Your task to perform on an android device: toggle notification dots Image 0: 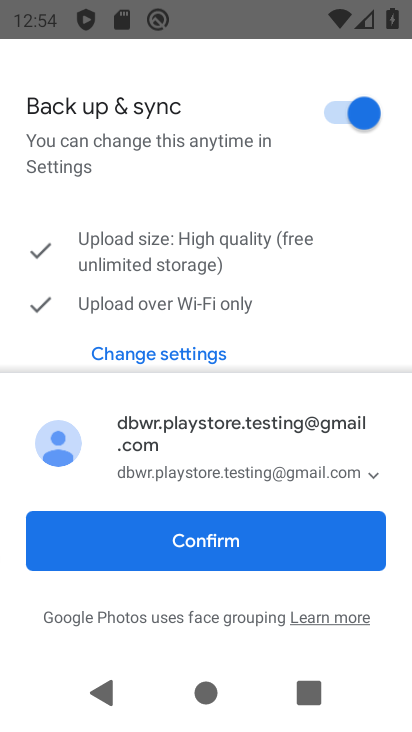
Step 0: press home button
Your task to perform on an android device: toggle notification dots Image 1: 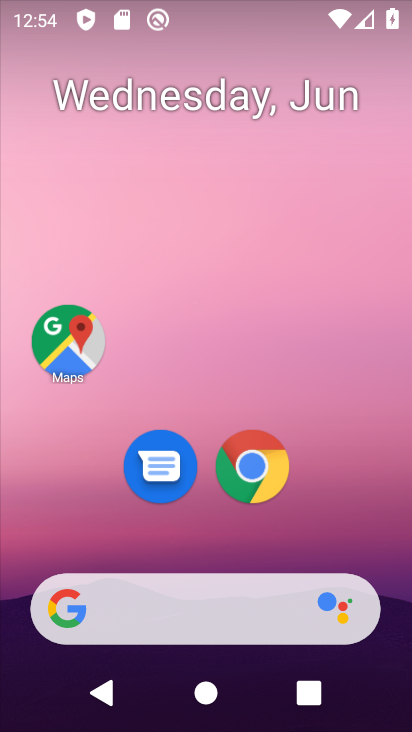
Step 1: drag from (77, 572) to (243, 150)
Your task to perform on an android device: toggle notification dots Image 2: 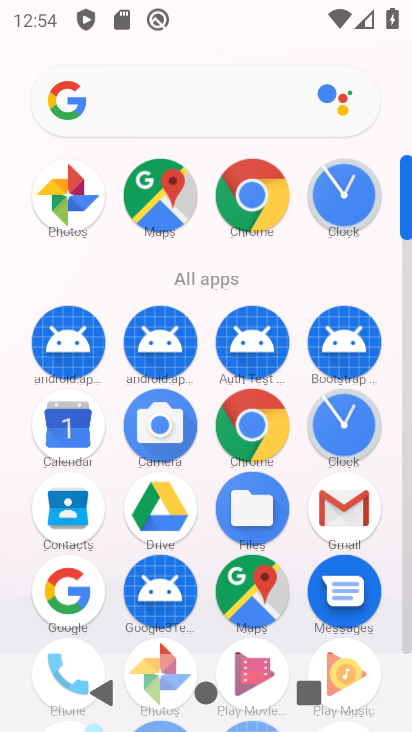
Step 2: drag from (164, 574) to (226, 344)
Your task to perform on an android device: toggle notification dots Image 3: 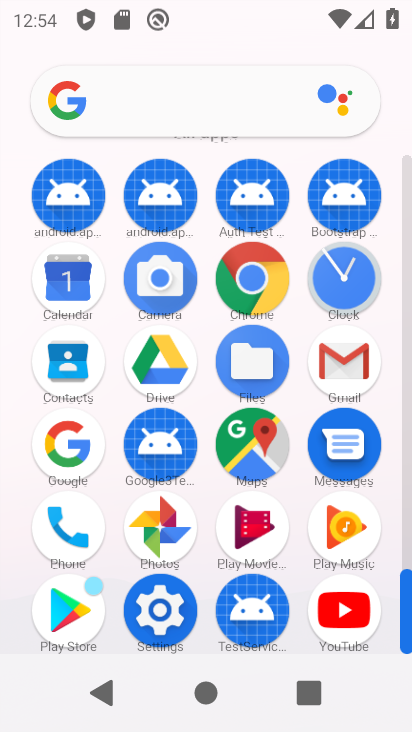
Step 3: click (173, 618)
Your task to perform on an android device: toggle notification dots Image 4: 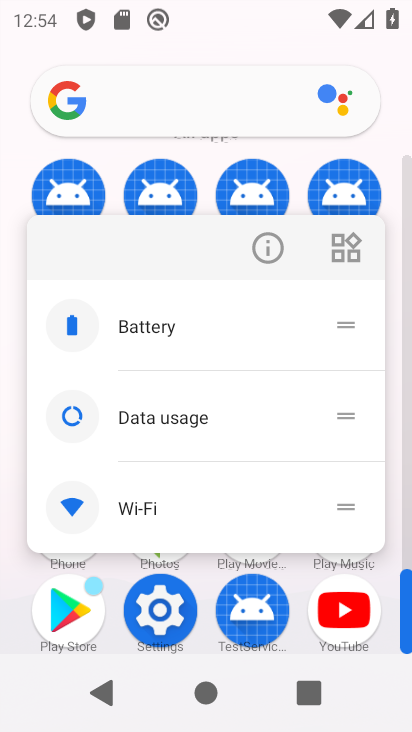
Step 4: click (151, 613)
Your task to perform on an android device: toggle notification dots Image 5: 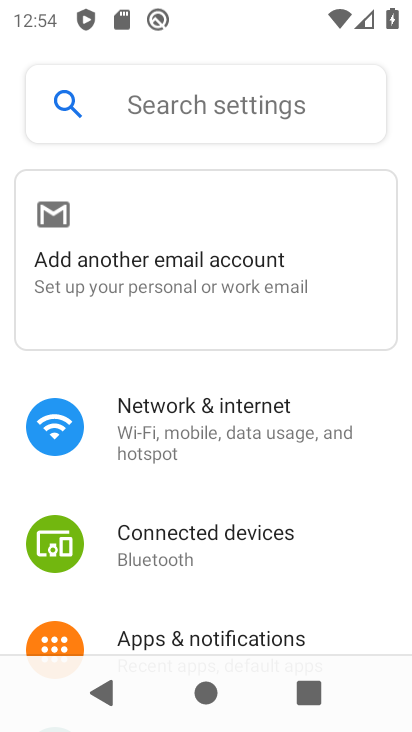
Step 5: drag from (192, 625) to (240, 406)
Your task to perform on an android device: toggle notification dots Image 6: 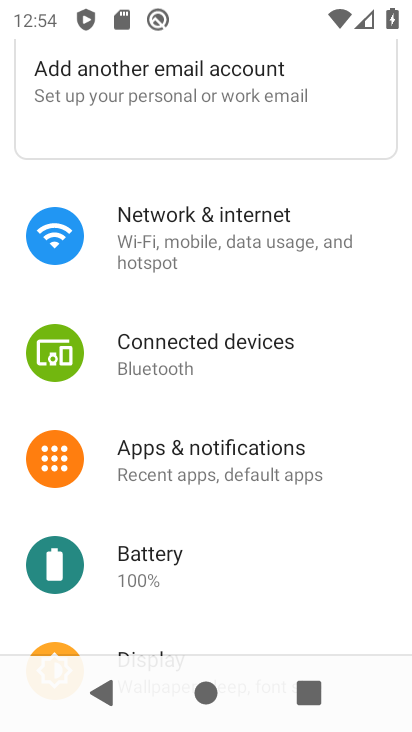
Step 6: click (258, 472)
Your task to perform on an android device: toggle notification dots Image 7: 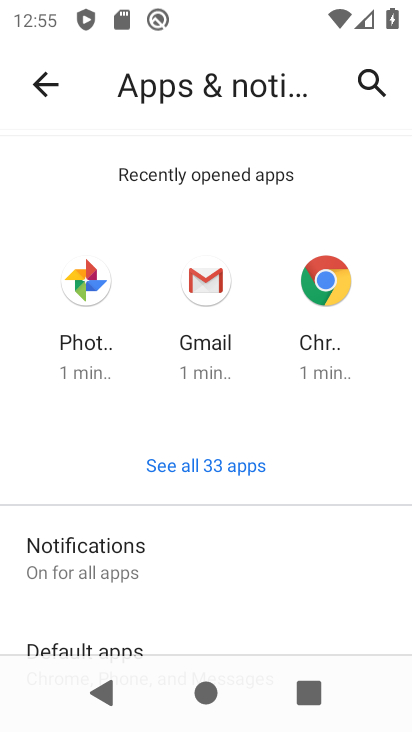
Step 7: drag from (239, 603) to (310, 299)
Your task to perform on an android device: toggle notification dots Image 8: 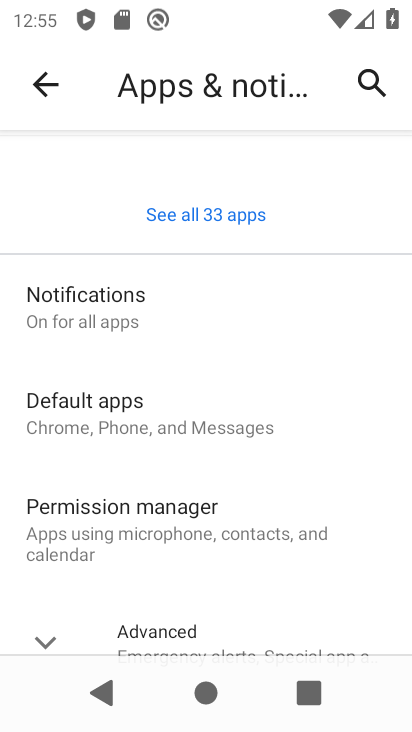
Step 8: click (190, 619)
Your task to perform on an android device: toggle notification dots Image 9: 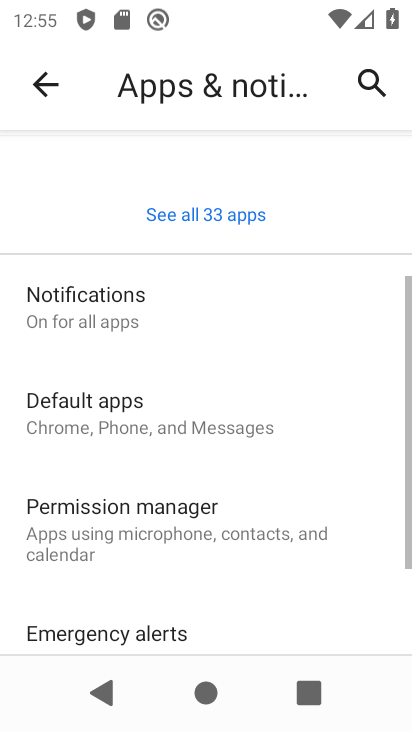
Step 9: drag from (200, 590) to (252, 374)
Your task to perform on an android device: toggle notification dots Image 10: 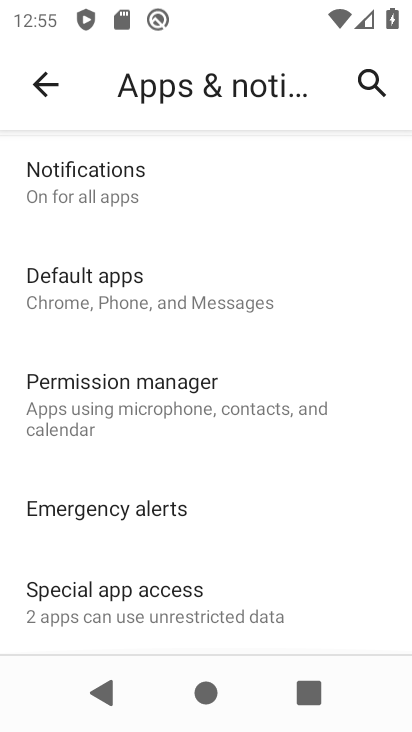
Step 10: click (204, 175)
Your task to perform on an android device: toggle notification dots Image 11: 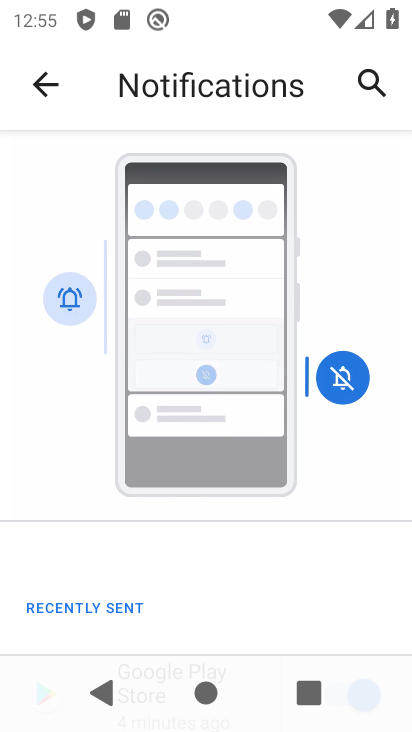
Step 11: drag from (141, 577) to (254, 198)
Your task to perform on an android device: toggle notification dots Image 12: 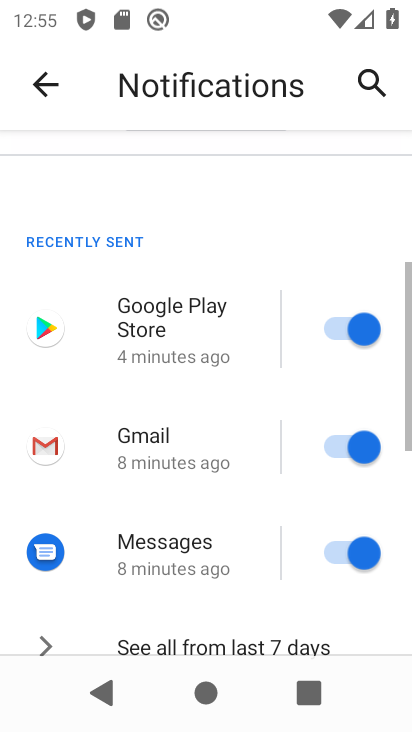
Step 12: drag from (173, 614) to (250, 215)
Your task to perform on an android device: toggle notification dots Image 13: 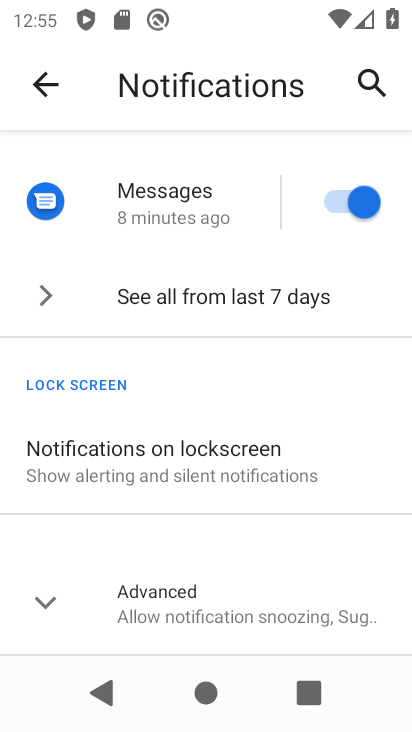
Step 13: click (190, 600)
Your task to perform on an android device: toggle notification dots Image 14: 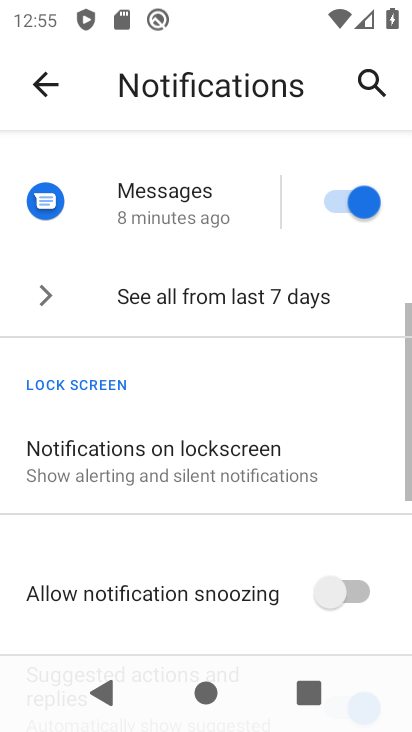
Step 14: drag from (199, 603) to (294, 212)
Your task to perform on an android device: toggle notification dots Image 15: 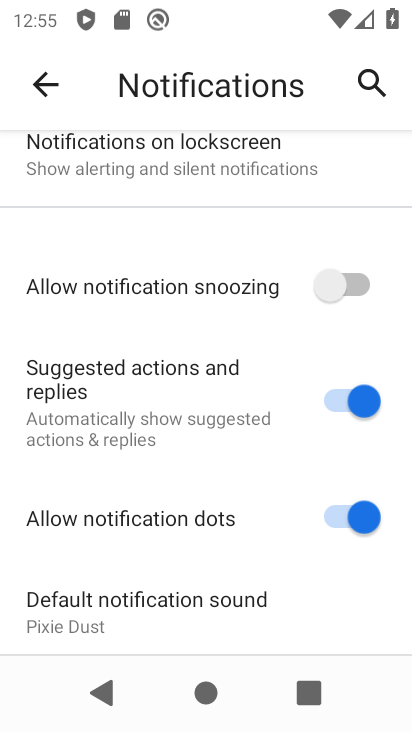
Step 15: click (338, 502)
Your task to perform on an android device: toggle notification dots Image 16: 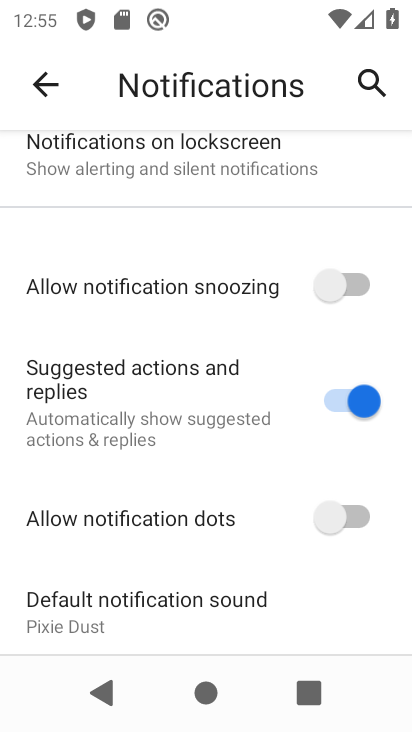
Step 16: task complete